Your task to perform on an android device: Add "acer predator" to the cart on ebay.com, then select checkout. Image 0: 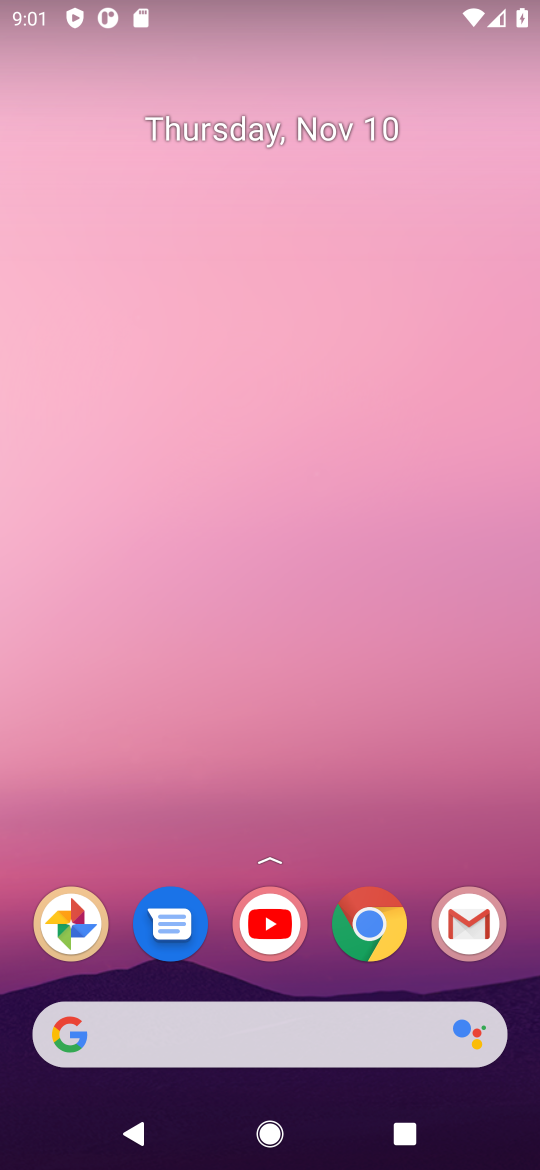
Step 0: click (378, 936)
Your task to perform on an android device: Add "acer predator" to the cart on ebay.com, then select checkout. Image 1: 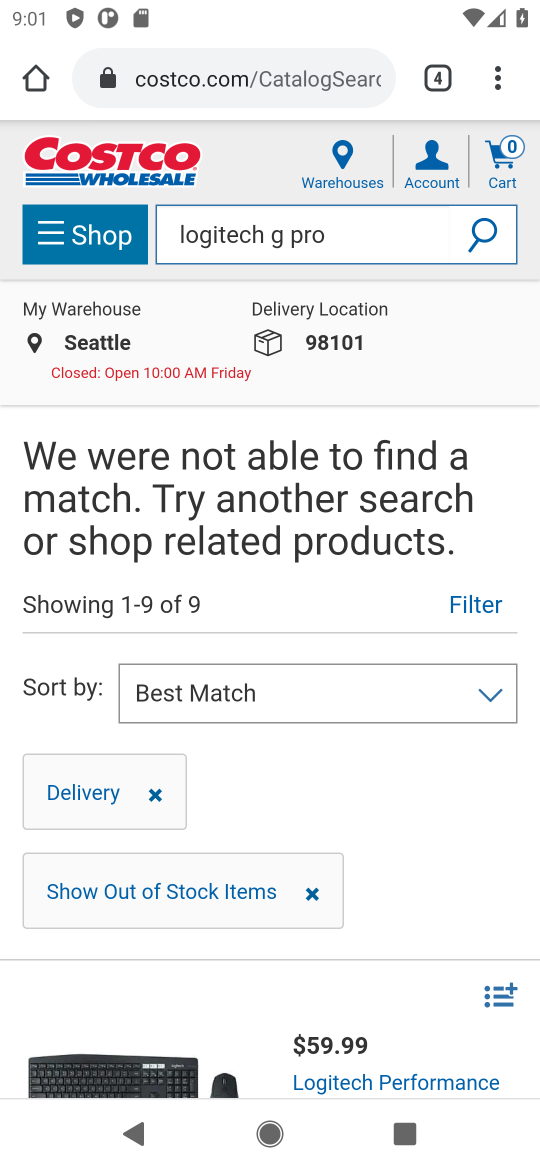
Step 1: click (171, 74)
Your task to perform on an android device: Add "acer predator" to the cart on ebay.com, then select checkout. Image 2: 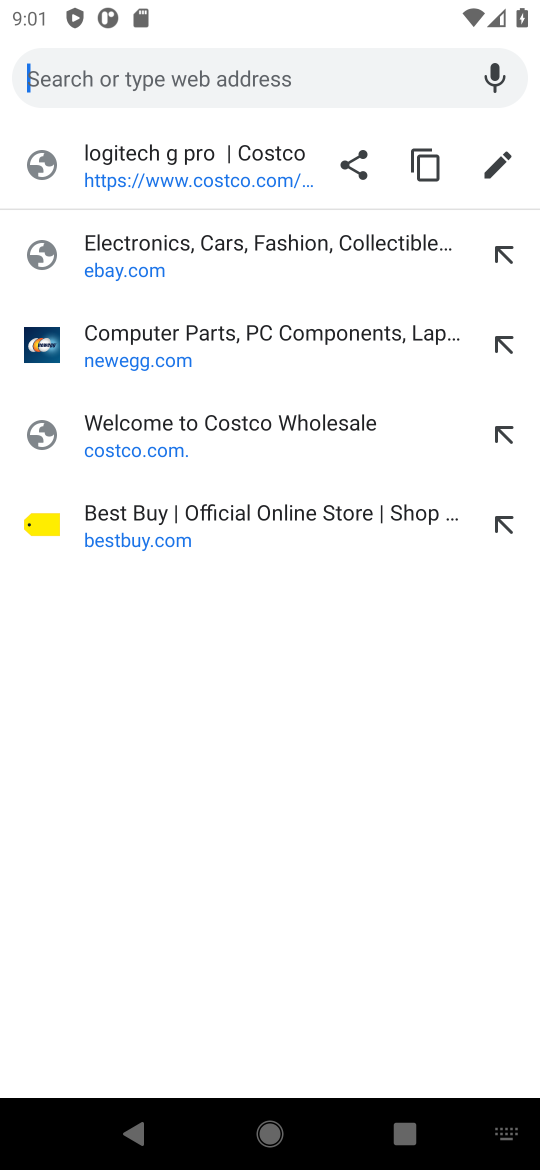
Step 2: click (101, 267)
Your task to perform on an android device: Add "acer predator" to the cart on ebay.com, then select checkout. Image 3: 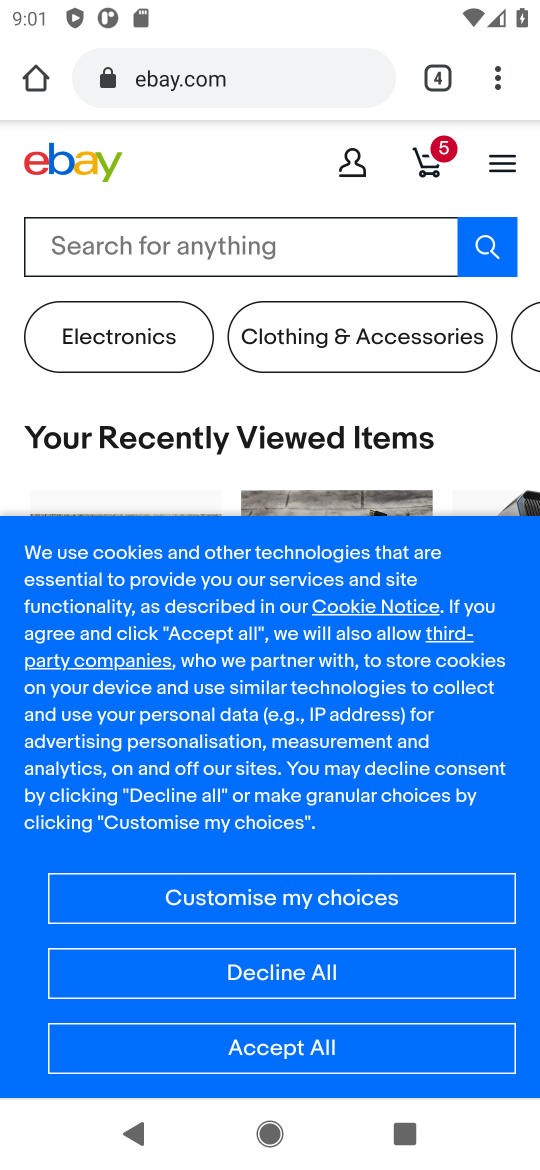
Step 3: click (103, 248)
Your task to perform on an android device: Add "acer predator" to the cart on ebay.com, then select checkout. Image 4: 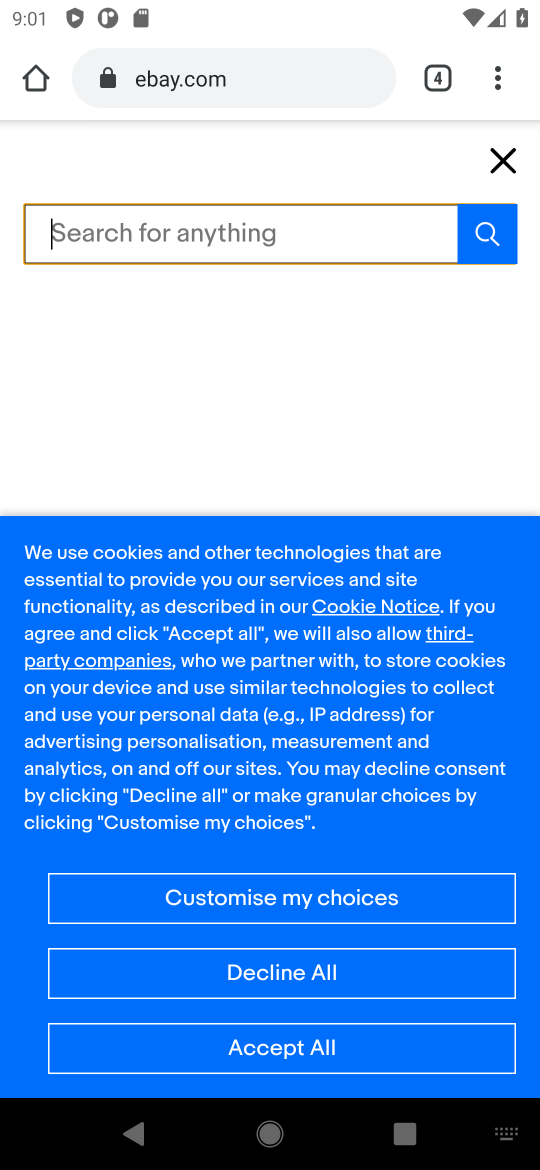
Step 4: type "acer predator"
Your task to perform on an android device: Add "acer predator" to the cart on ebay.com, then select checkout. Image 5: 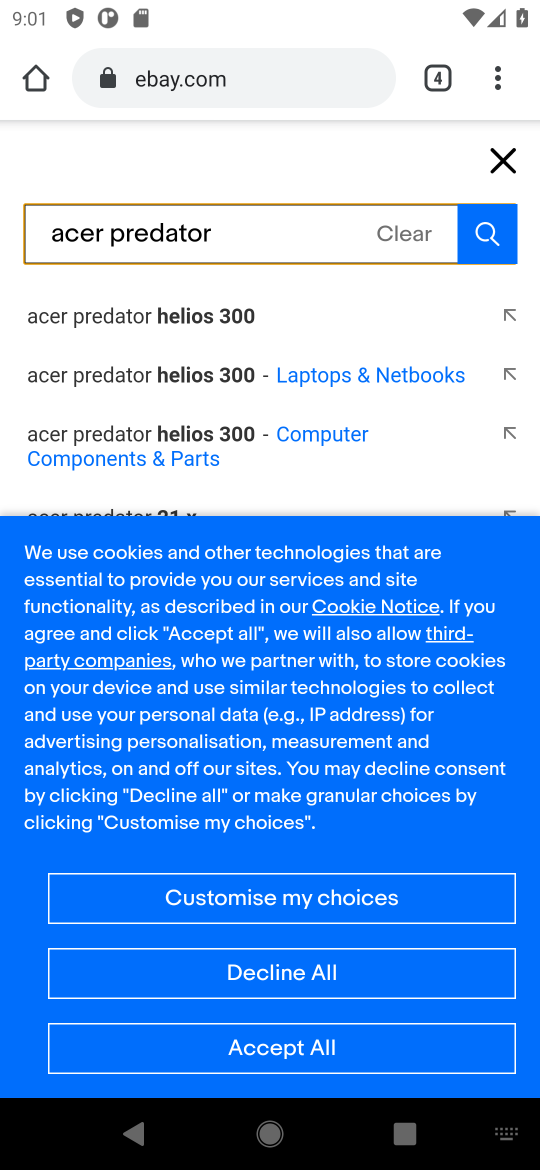
Step 5: click (484, 238)
Your task to perform on an android device: Add "acer predator" to the cart on ebay.com, then select checkout. Image 6: 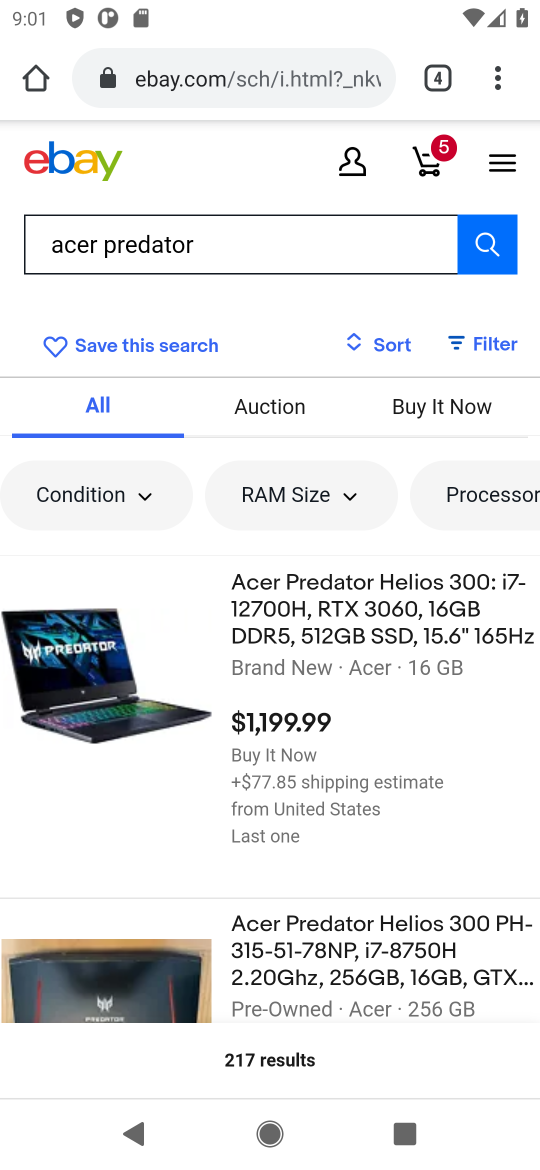
Step 6: click (115, 705)
Your task to perform on an android device: Add "acer predator" to the cart on ebay.com, then select checkout. Image 7: 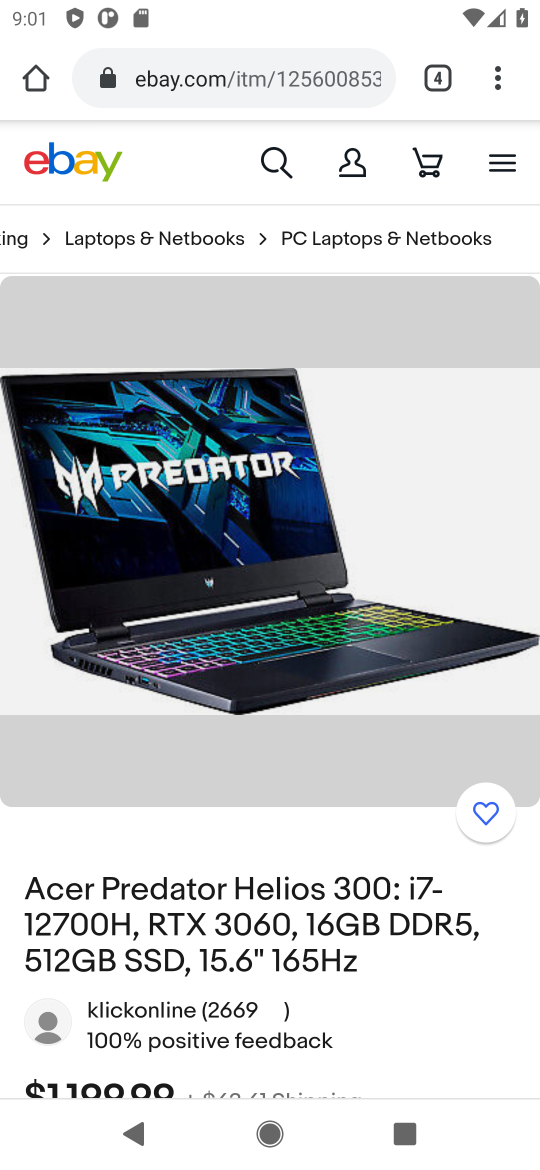
Step 7: drag from (261, 901) to (225, 230)
Your task to perform on an android device: Add "acer predator" to the cart on ebay.com, then select checkout. Image 8: 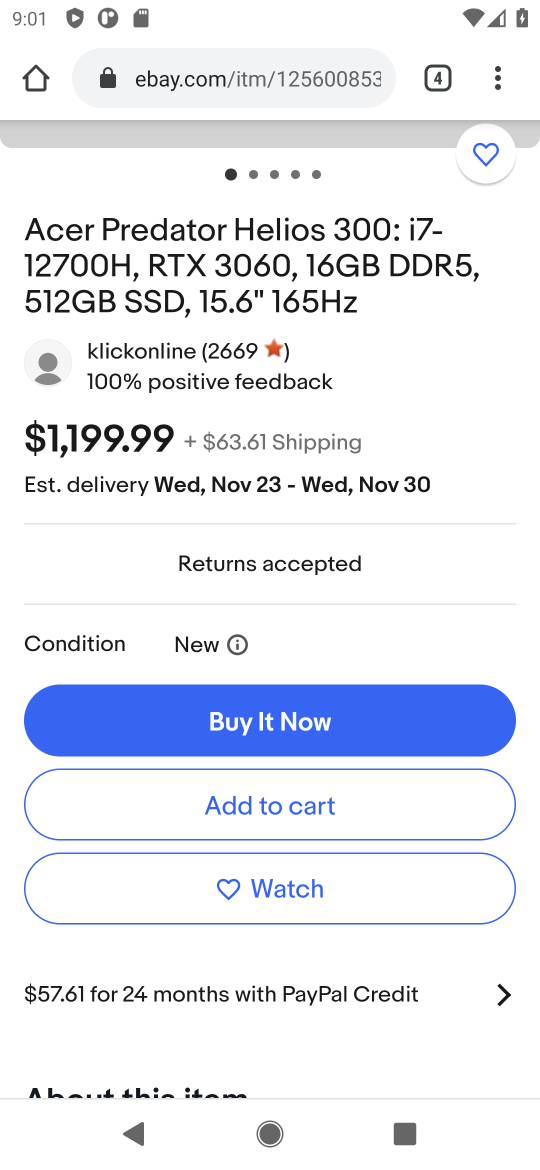
Step 8: click (213, 808)
Your task to perform on an android device: Add "acer predator" to the cart on ebay.com, then select checkout. Image 9: 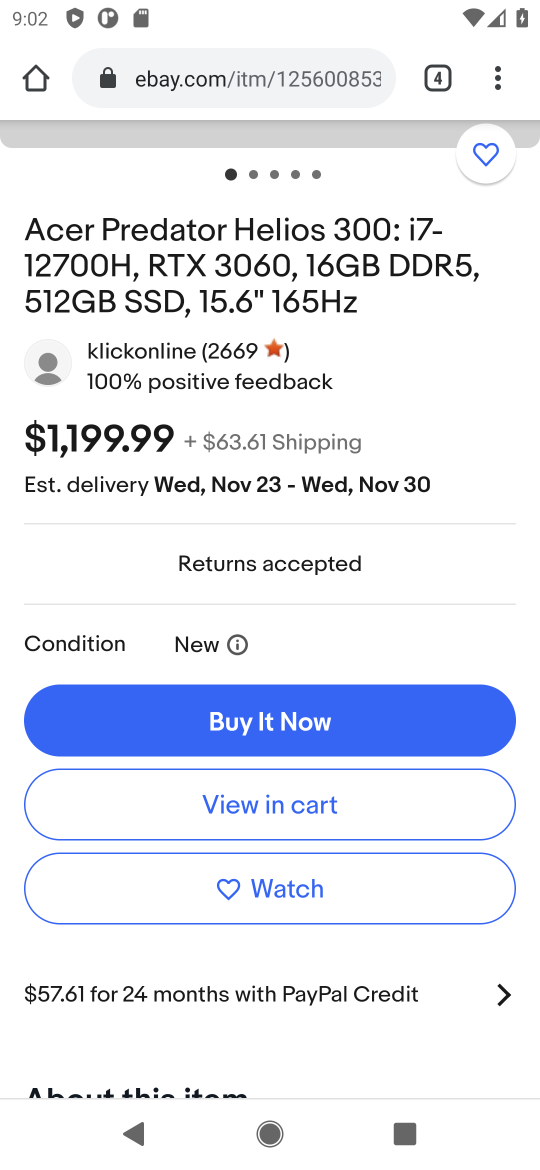
Step 9: click (242, 808)
Your task to perform on an android device: Add "acer predator" to the cart on ebay.com, then select checkout. Image 10: 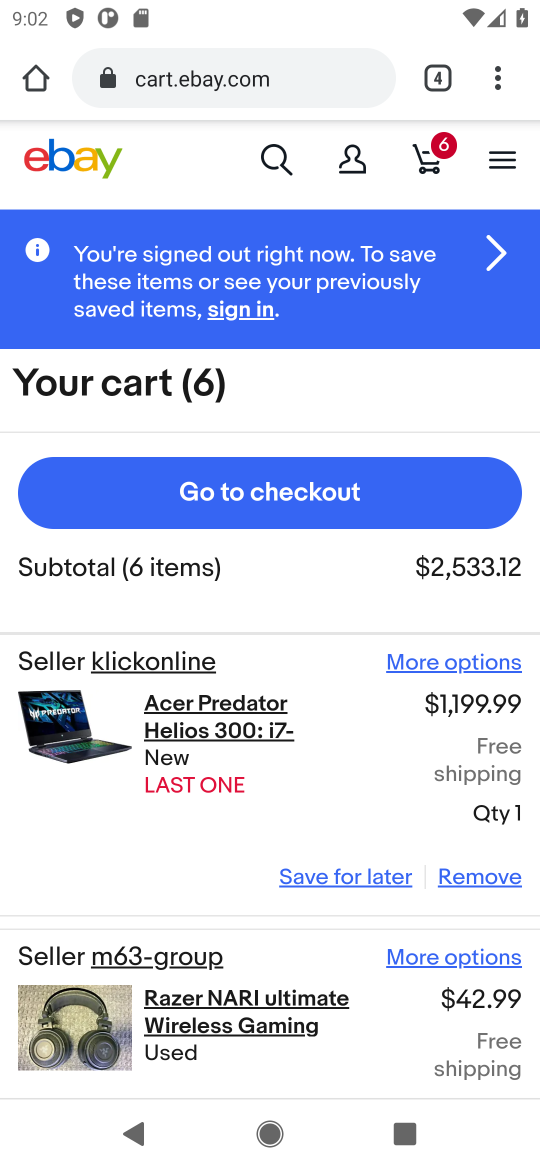
Step 10: click (265, 494)
Your task to perform on an android device: Add "acer predator" to the cart on ebay.com, then select checkout. Image 11: 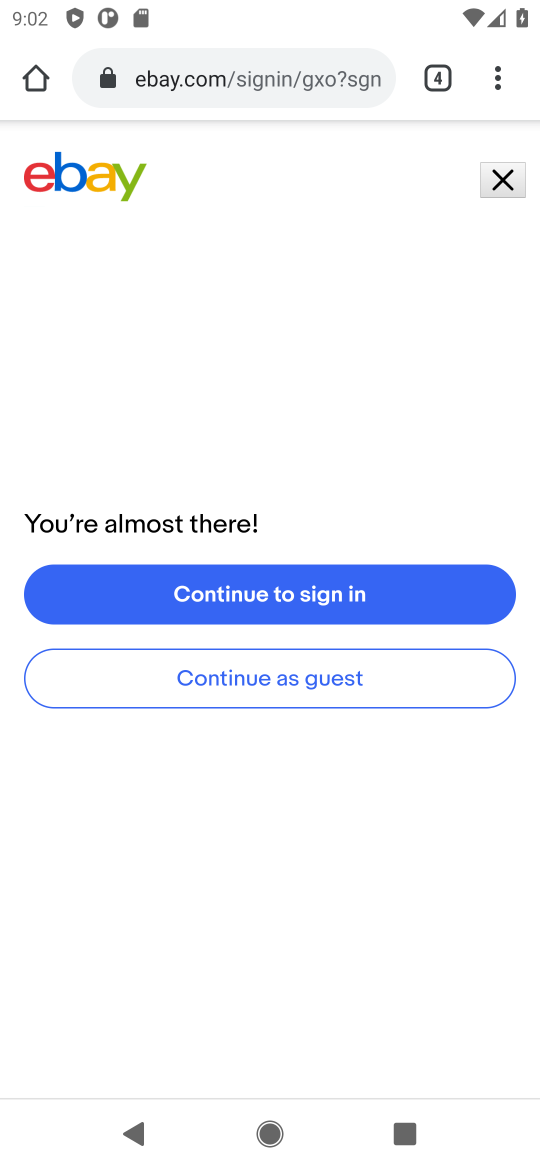
Step 11: task complete